Your task to perform on an android device: Do I have any events tomorrow? Image 0: 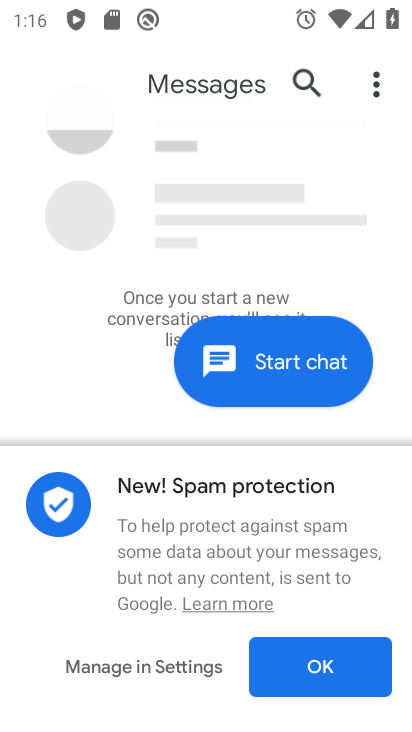
Step 0: press home button
Your task to perform on an android device: Do I have any events tomorrow? Image 1: 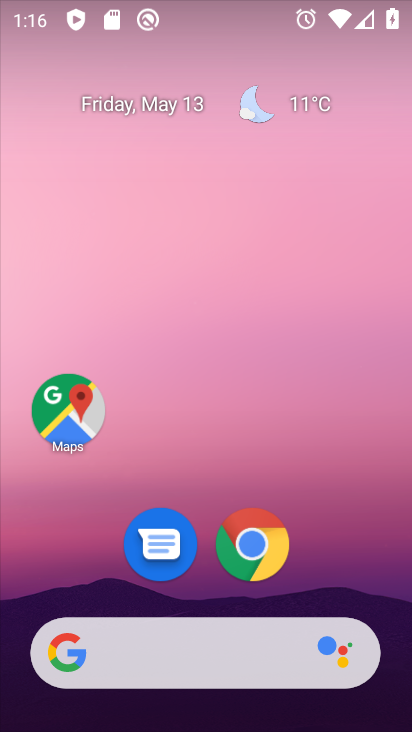
Step 1: drag from (216, 584) to (231, 216)
Your task to perform on an android device: Do I have any events tomorrow? Image 2: 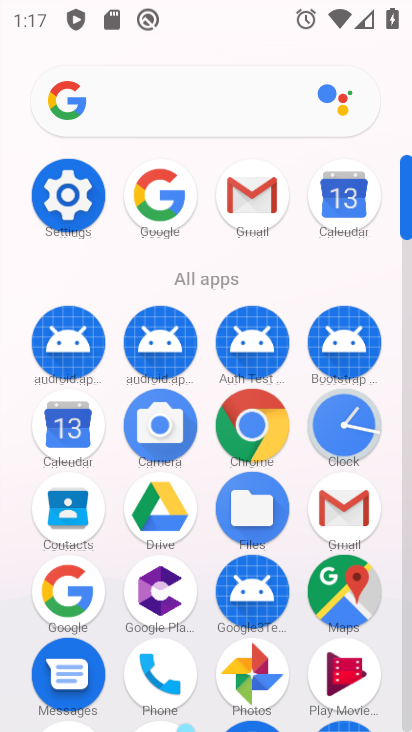
Step 2: click (69, 429)
Your task to perform on an android device: Do I have any events tomorrow? Image 3: 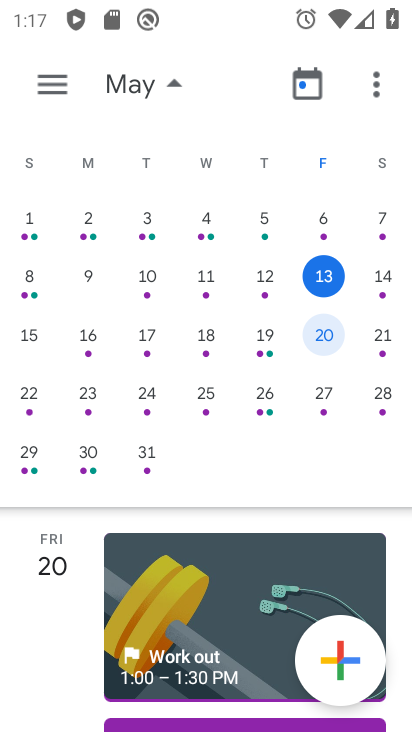
Step 3: click (384, 285)
Your task to perform on an android device: Do I have any events tomorrow? Image 4: 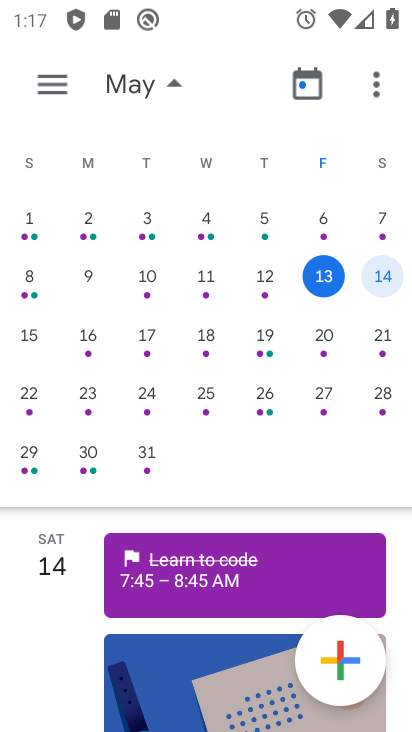
Step 4: task complete